Your task to perform on an android device: See recent photos Image 0: 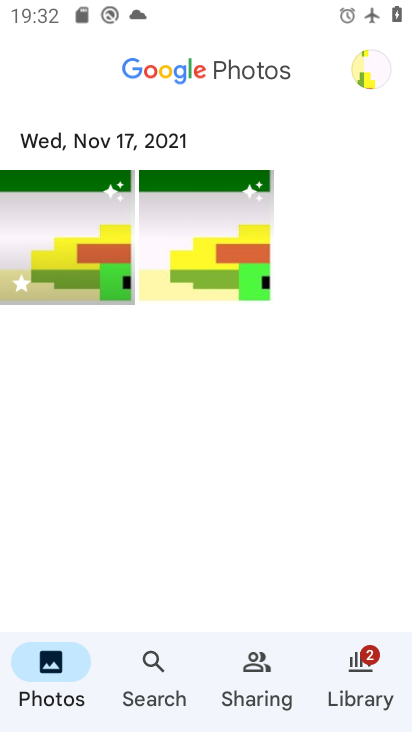
Step 0: task complete